Your task to perform on an android device: Do I have any events today? Image 0: 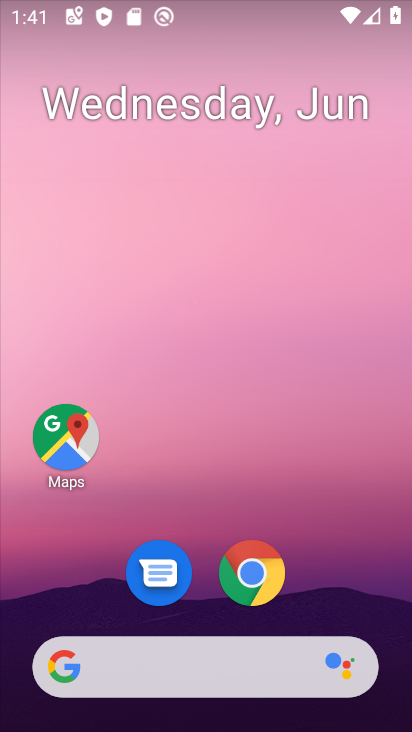
Step 0: drag from (316, 518) to (311, 63)
Your task to perform on an android device: Do I have any events today? Image 1: 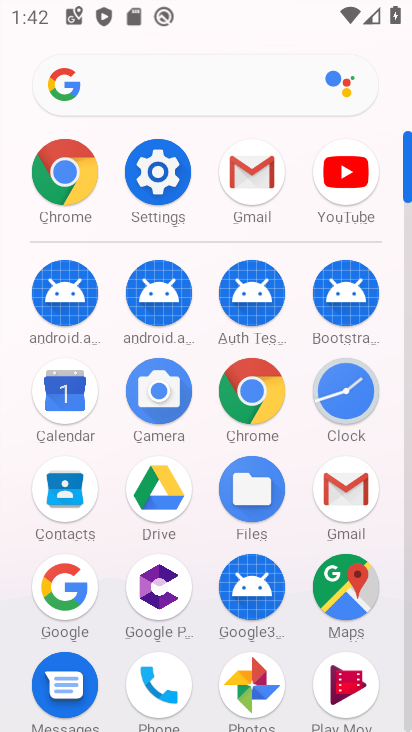
Step 1: click (62, 400)
Your task to perform on an android device: Do I have any events today? Image 2: 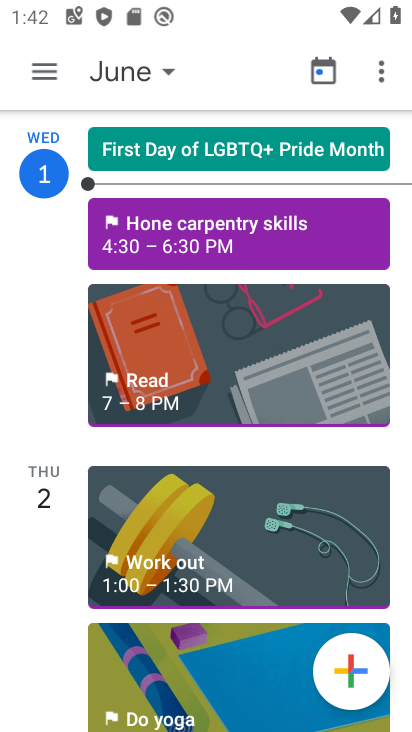
Step 2: task complete